Your task to perform on an android device: What is the news today? Image 0: 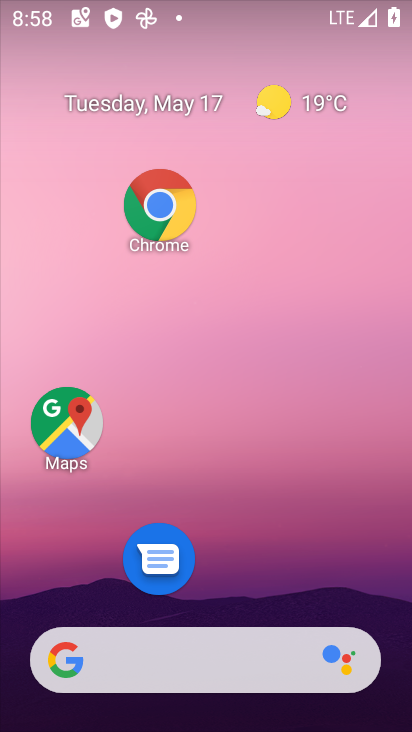
Step 0: drag from (210, 611) to (176, 269)
Your task to perform on an android device: What is the news today? Image 1: 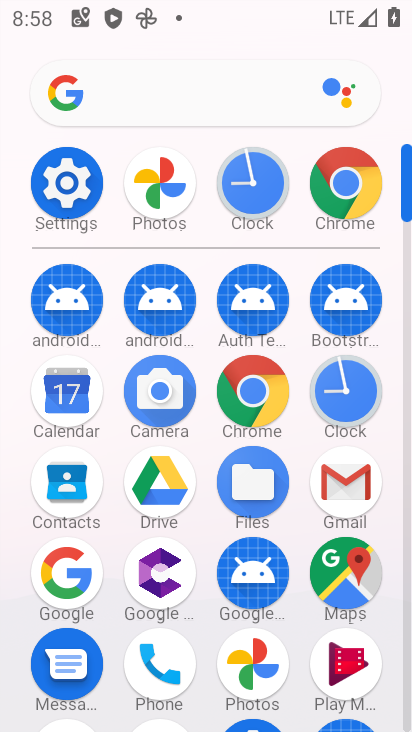
Step 1: click (207, 86)
Your task to perform on an android device: What is the news today? Image 2: 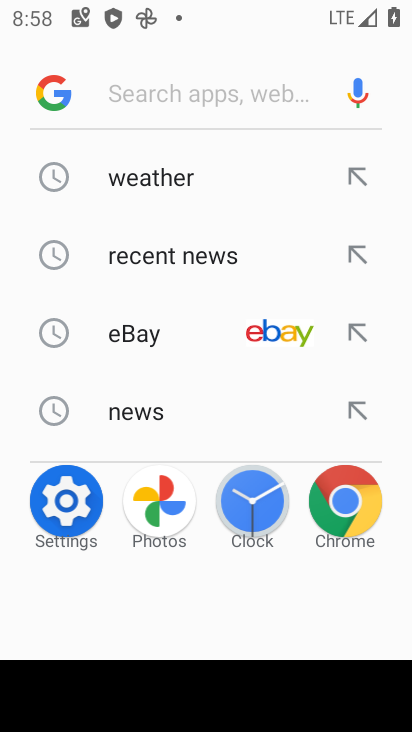
Step 2: drag from (193, 288) to (172, 121)
Your task to perform on an android device: What is the news today? Image 3: 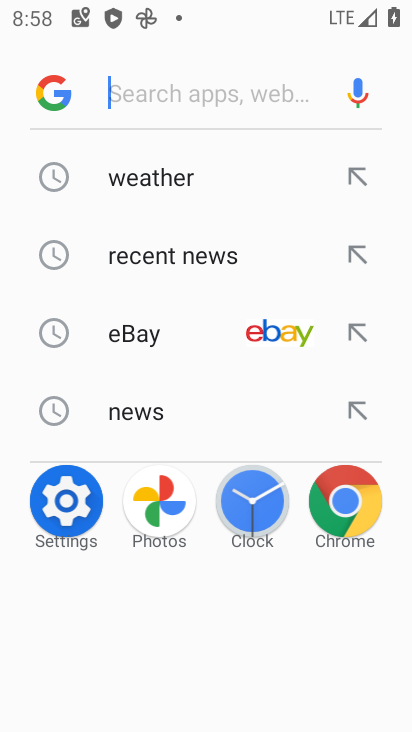
Step 3: click (172, 120)
Your task to perform on an android device: What is the news today? Image 4: 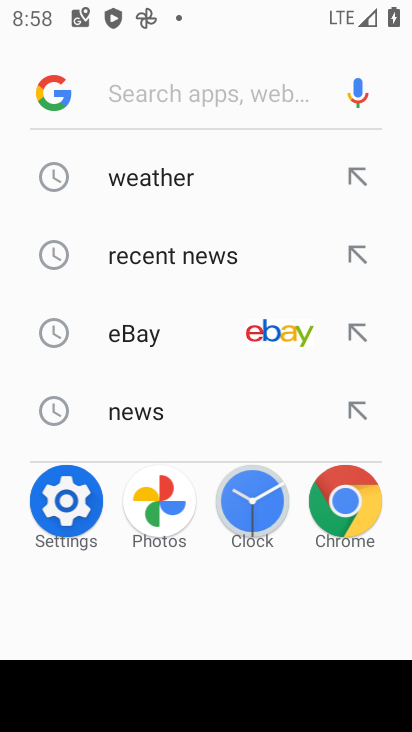
Step 4: click (177, 78)
Your task to perform on an android device: What is the news today? Image 5: 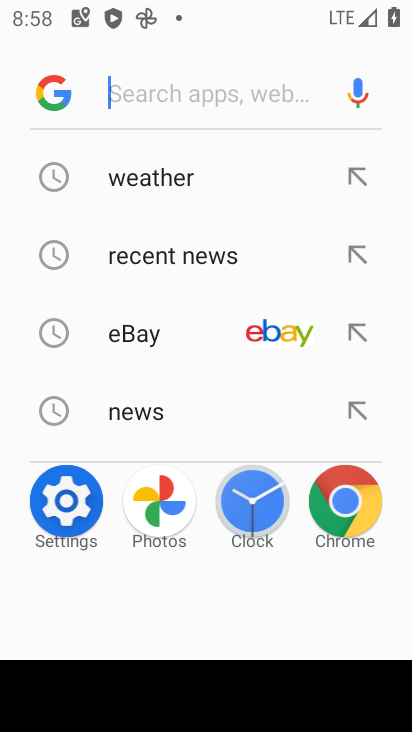
Step 5: type "news today"
Your task to perform on an android device: What is the news today? Image 6: 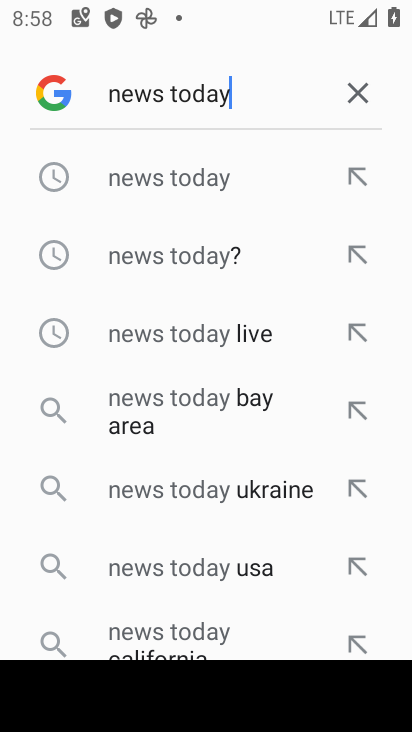
Step 6: click (169, 268)
Your task to perform on an android device: What is the news today? Image 7: 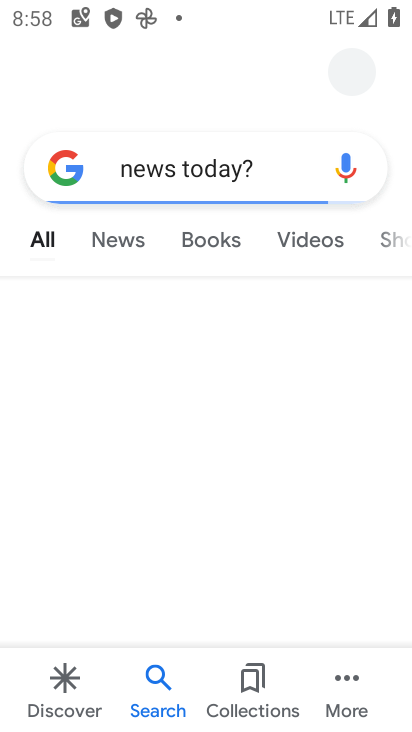
Step 7: task complete